Your task to perform on an android device: Open Android settings Image 0: 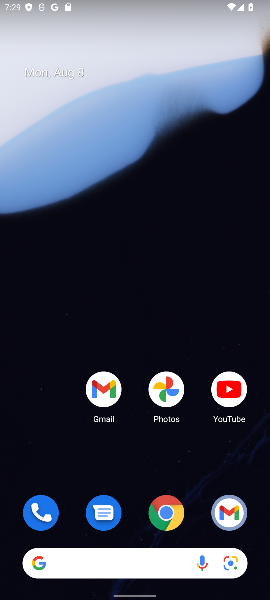
Step 0: drag from (33, 585) to (127, 115)
Your task to perform on an android device: Open Android settings Image 1: 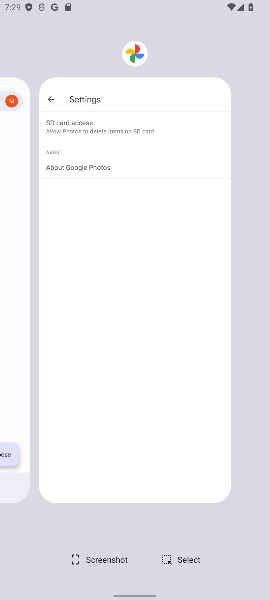
Step 1: press home button
Your task to perform on an android device: Open Android settings Image 2: 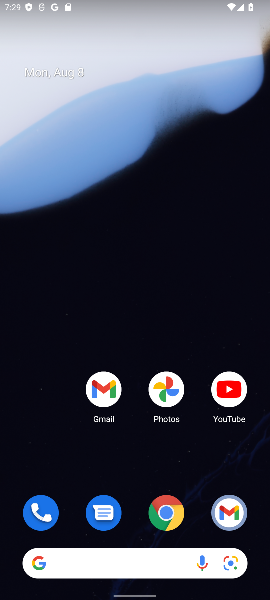
Step 2: drag from (63, 586) to (240, 96)
Your task to perform on an android device: Open Android settings Image 3: 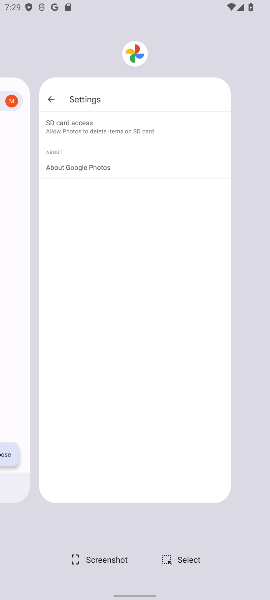
Step 3: click (122, 232)
Your task to perform on an android device: Open Android settings Image 4: 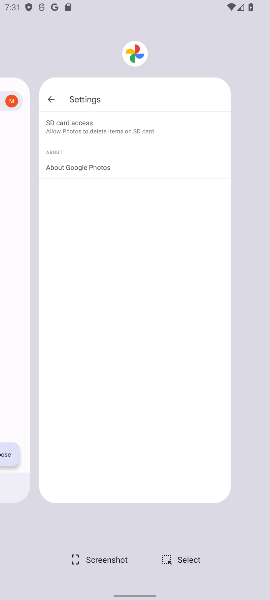
Step 4: press home button
Your task to perform on an android device: Open Android settings Image 5: 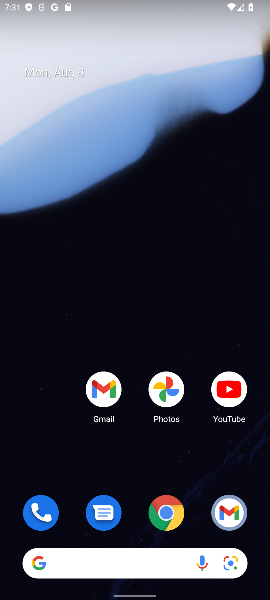
Step 5: drag from (39, 562) to (146, 150)
Your task to perform on an android device: Open Android settings Image 6: 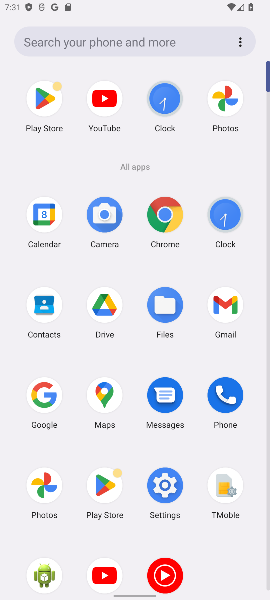
Step 6: click (175, 488)
Your task to perform on an android device: Open Android settings Image 7: 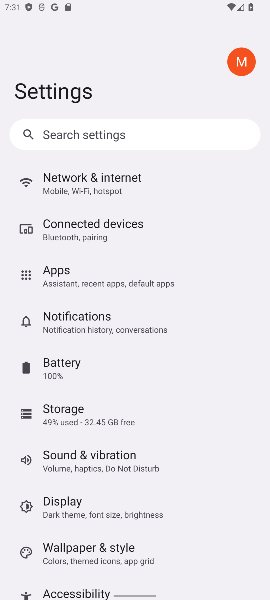
Step 7: drag from (134, 567) to (222, 109)
Your task to perform on an android device: Open Android settings Image 8: 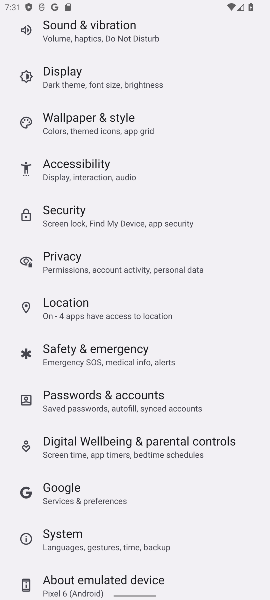
Step 8: click (57, 586)
Your task to perform on an android device: Open Android settings Image 9: 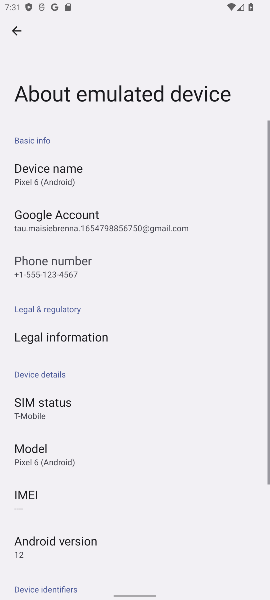
Step 9: task complete